Your task to perform on an android device: Set the phone to "Do not disturb". Image 0: 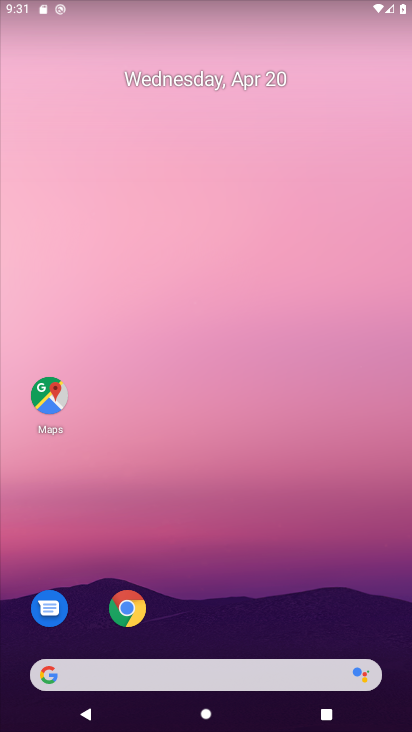
Step 0: drag from (207, 618) to (278, 22)
Your task to perform on an android device: Set the phone to "Do not disturb". Image 1: 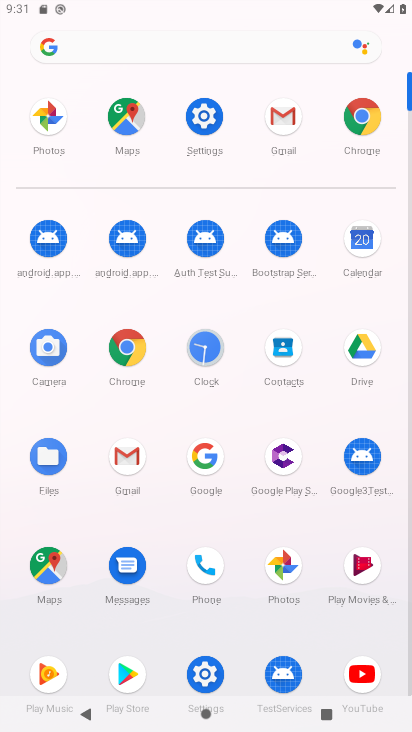
Step 1: click (214, 136)
Your task to perform on an android device: Set the phone to "Do not disturb". Image 2: 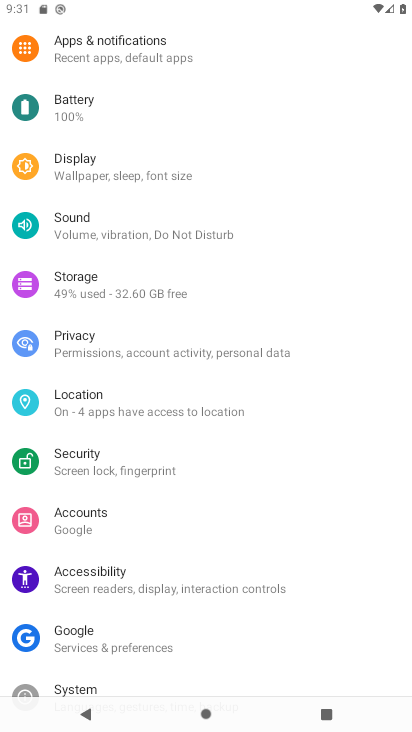
Step 2: click (143, 233)
Your task to perform on an android device: Set the phone to "Do not disturb". Image 3: 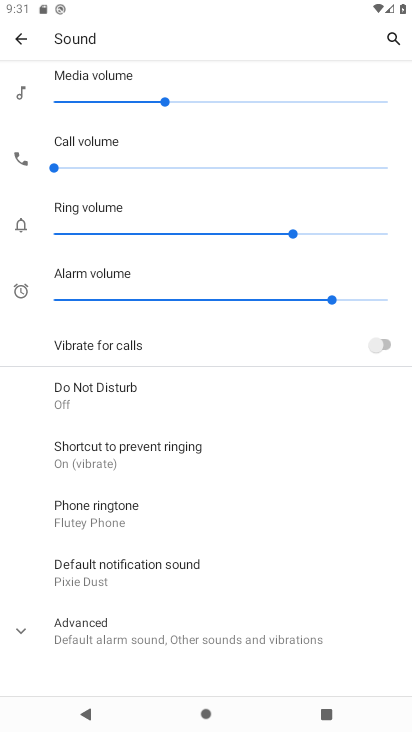
Step 3: click (104, 400)
Your task to perform on an android device: Set the phone to "Do not disturb". Image 4: 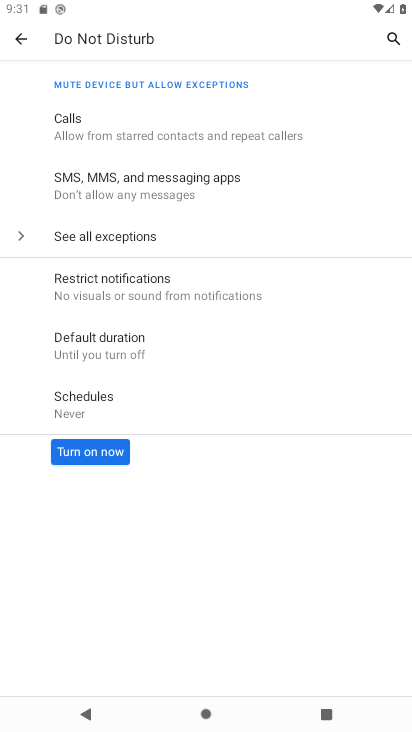
Step 4: click (85, 452)
Your task to perform on an android device: Set the phone to "Do not disturb". Image 5: 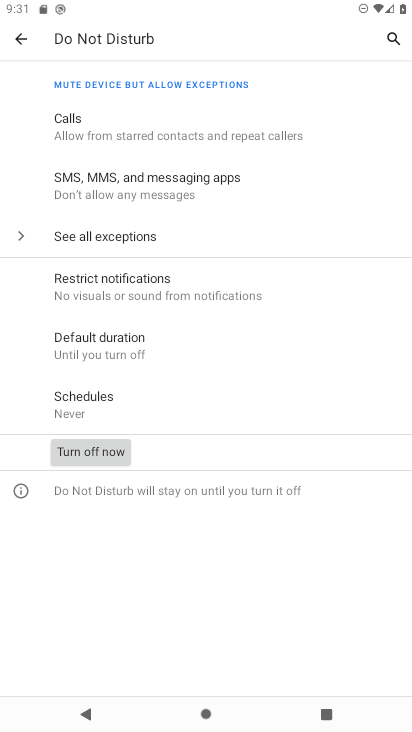
Step 5: task complete